Your task to perform on an android device: Open network settings Image 0: 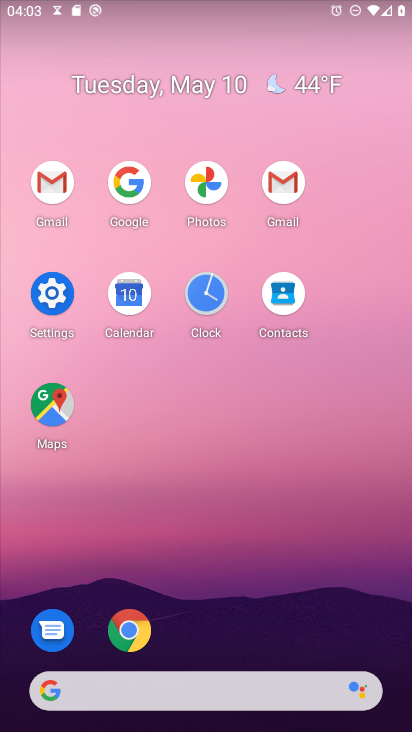
Step 0: click (55, 282)
Your task to perform on an android device: Open network settings Image 1: 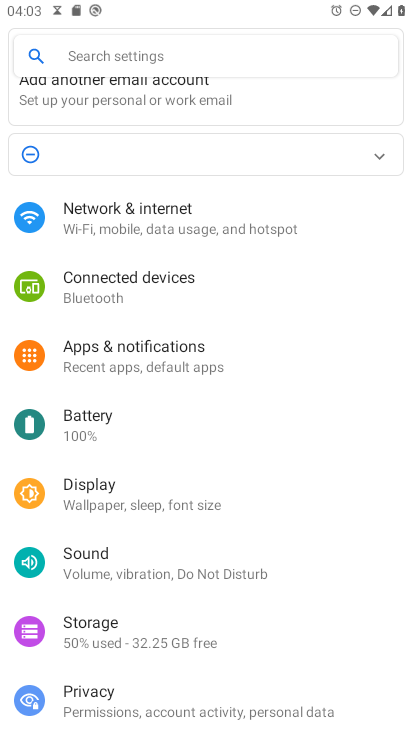
Step 1: click (189, 235)
Your task to perform on an android device: Open network settings Image 2: 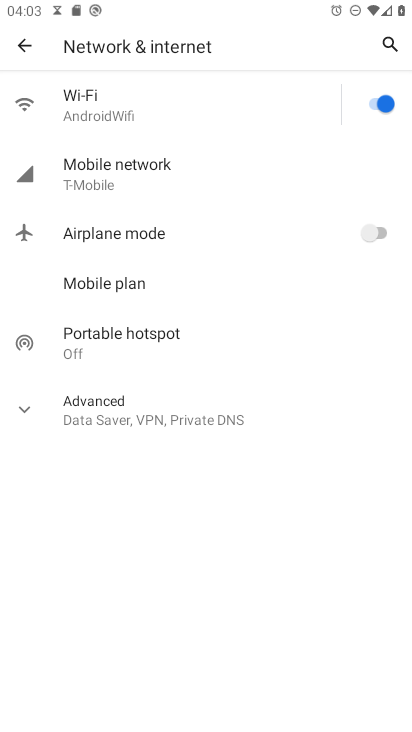
Step 2: click (191, 176)
Your task to perform on an android device: Open network settings Image 3: 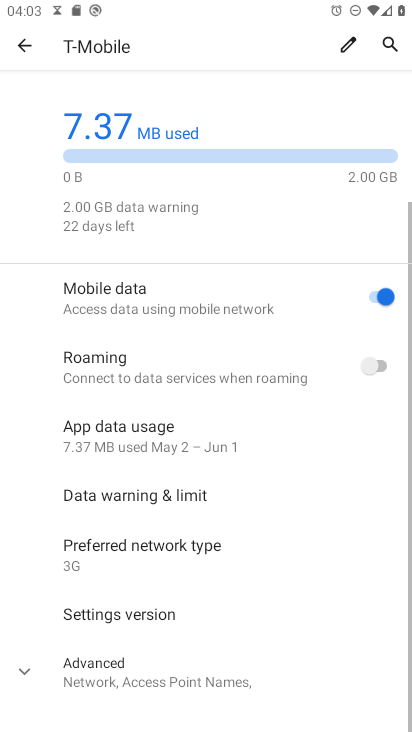
Step 3: task complete